Your task to perform on an android device: toggle wifi Image 0: 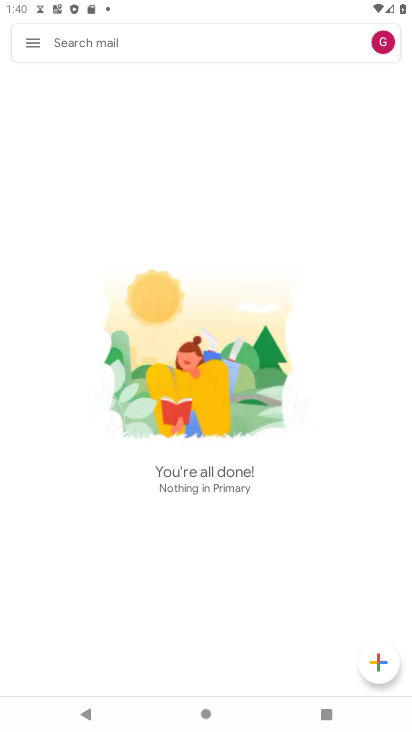
Step 0: press home button
Your task to perform on an android device: toggle wifi Image 1: 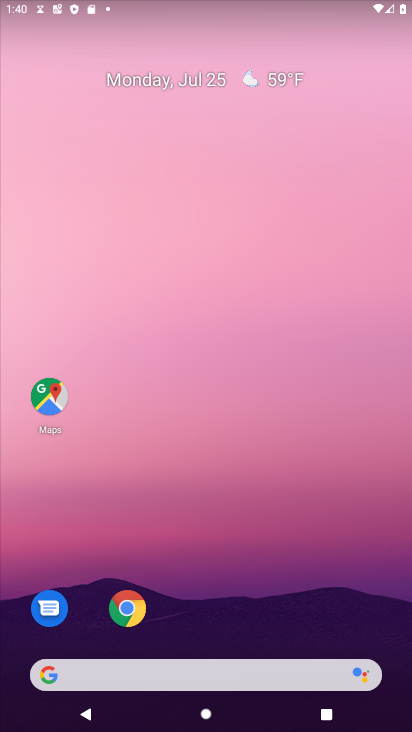
Step 1: drag from (244, 527) to (110, 84)
Your task to perform on an android device: toggle wifi Image 2: 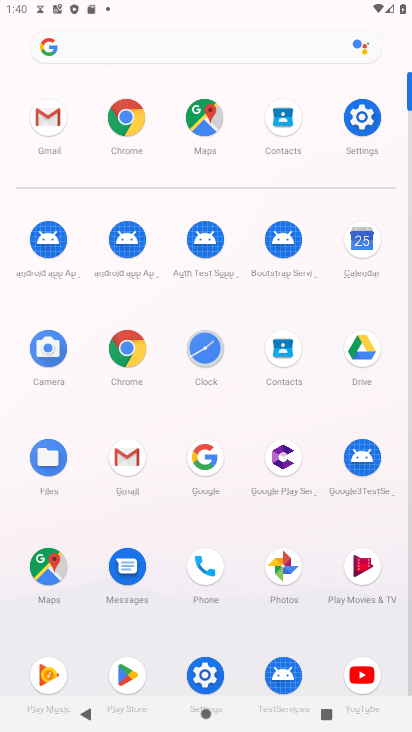
Step 2: click (352, 130)
Your task to perform on an android device: toggle wifi Image 3: 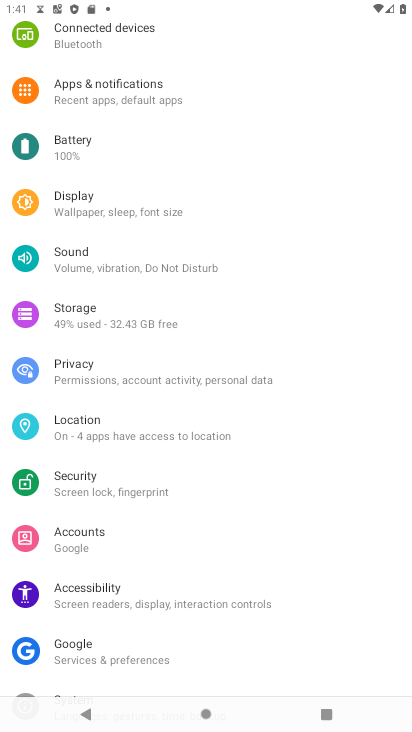
Step 3: drag from (186, 116) to (283, 507)
Your task to perform on an android device: toggle wifi Image 4: 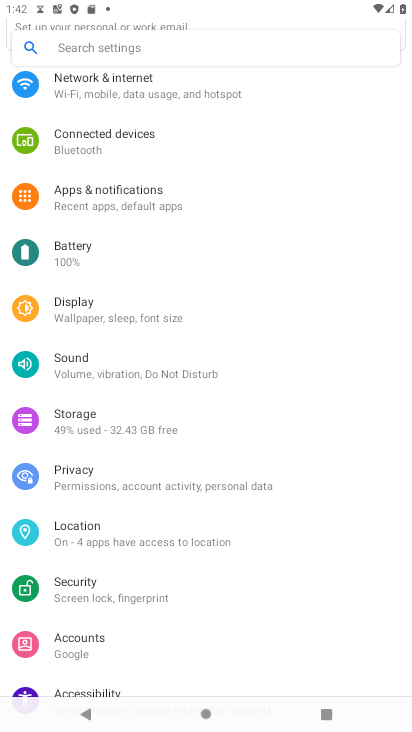
Step 4: drag from (127, 120) to (219, 521)
Your task to perform on an android device: toggle wifi Image 5: 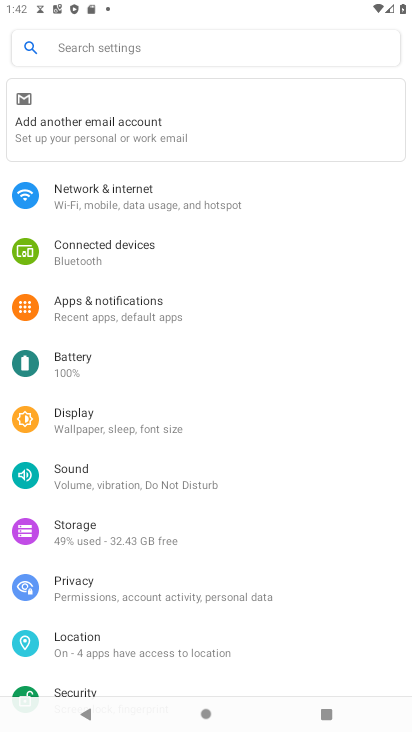
Step 5: click (161, 190)
Your task to perform on an android device: toggle wifi Image 6: 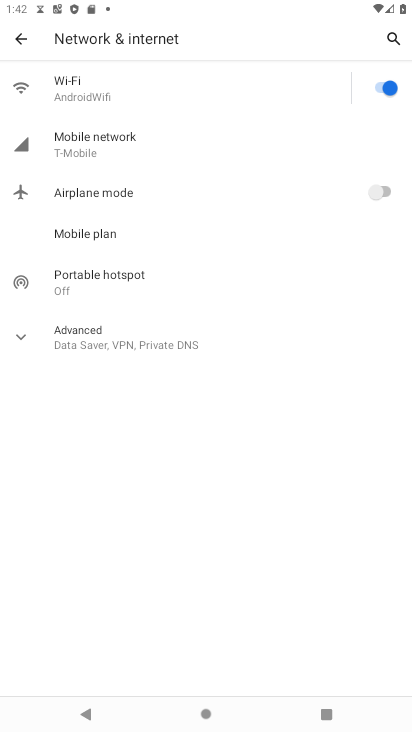
Step 6: click (384, 85)
Your task to perform on an android device: toggle wifi Image 7: 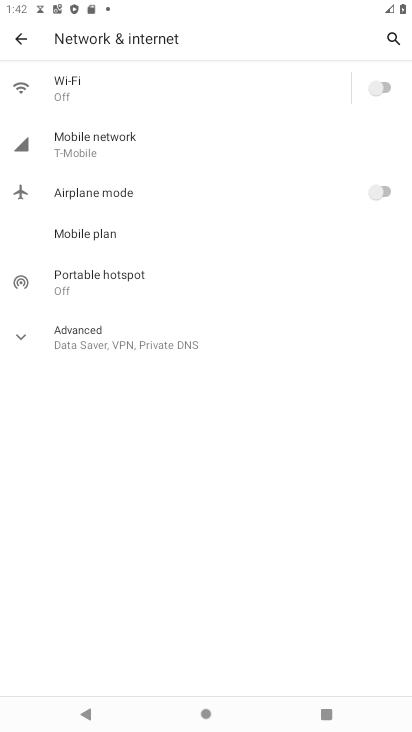
Step 7: task complete